Your task to perform on an android device: Go to battery settings Image 0: 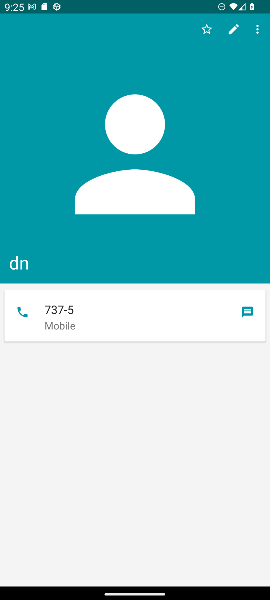
Step 0: press home button
Your task to perform on an android device: Go to battery settings Image 1: 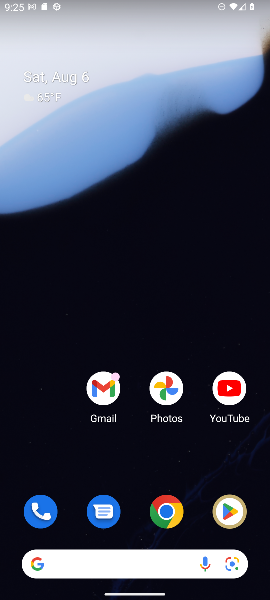
Step 1: drag from (112, 504) to (138, 216)
Your task to perform on an android device: Go to battery settings Image 2: 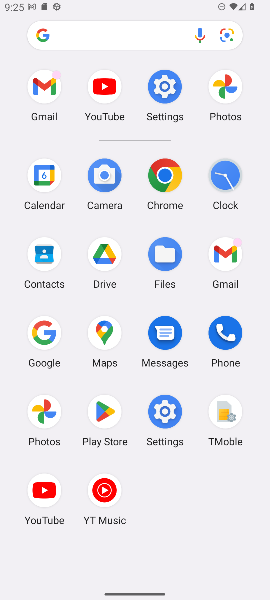
Step 2: click (160, 426)
Your task to perform on an android device: Go to battery settings Image 3: 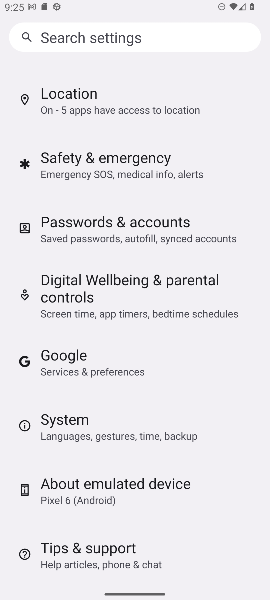
Step 3: drag from (122, 251) to (182, 571)
Your task to perform on an android device: Go to battery settings Image 4: 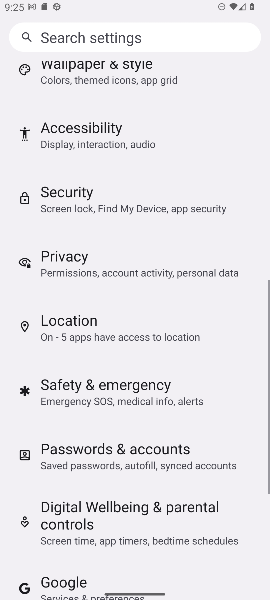
Step 4: drag from (153, 263) to (112, 540)
Your task to perform on an android device: Go to battery settings Image 5: 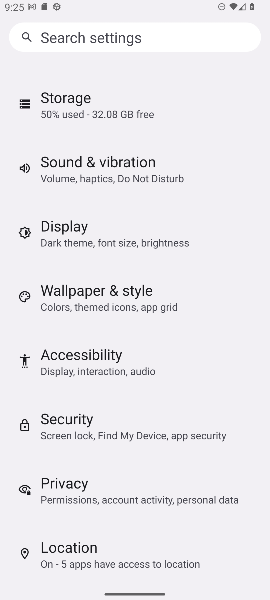
Step 5: drag from (134, 196) to (121, 582)
Your task to perform on an android device: Go to battery settings Image 6: 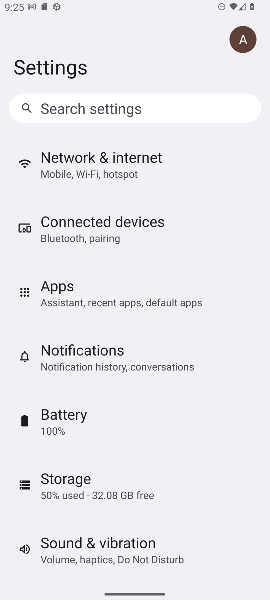
Step 6: click (105, 413)
Your task to perform on an android device: Go to battery settings Image 7: 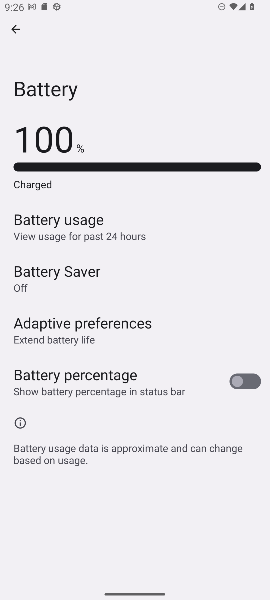
Step 7: task complete